Your task to perform on an android device: Check the news Image 0: 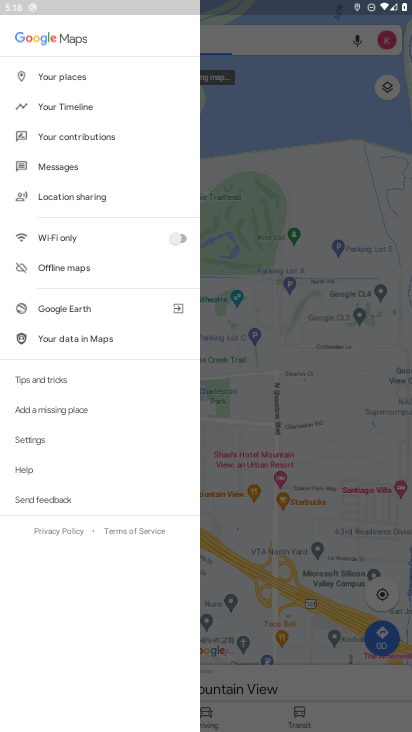
Step 0: press home button
Your task to perform on an android device: Check the news Image 1: 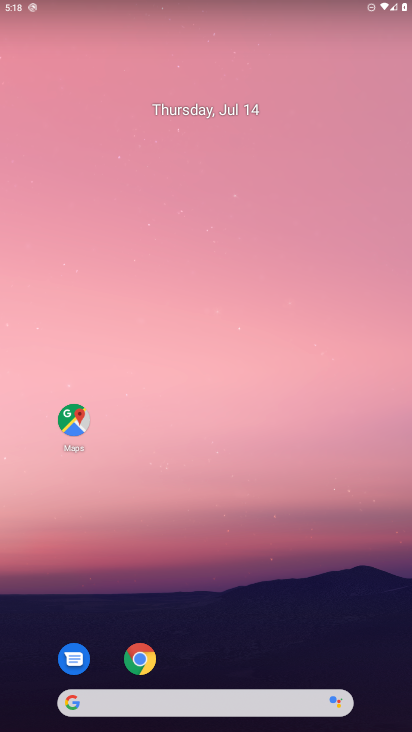
Step 1: task complete